Your task to perform on an android device: set the stopwatch Image 0: 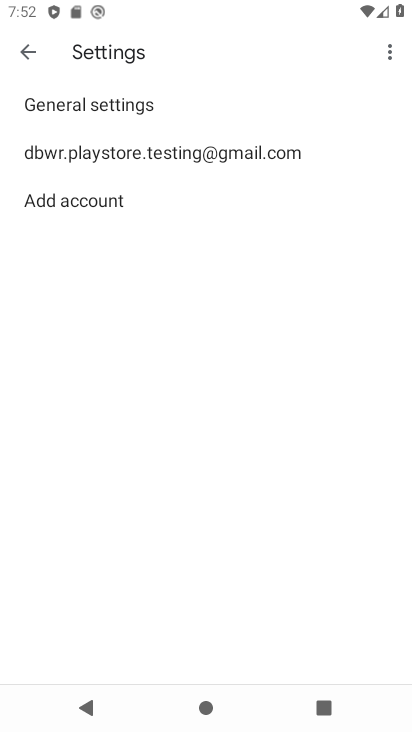
Step 0: press home button
Your task to perform on an android device: set the stopwatch Image 1: 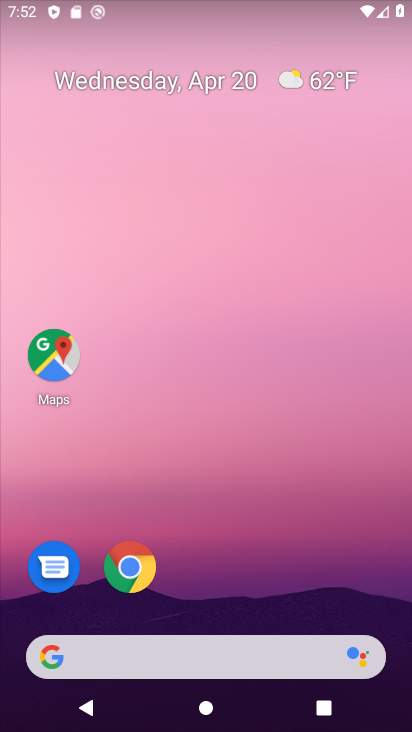
Step 1: drag from (337, 614) to (323, 0)
Your task to perform on an android device: set the stopwatch Image 2: 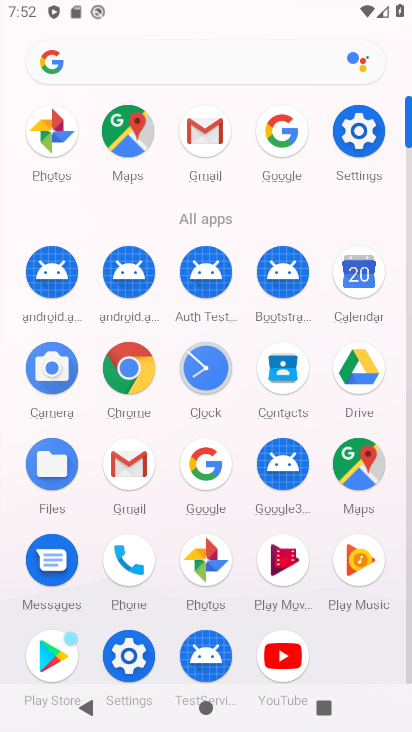
Step 2: click (203, 371)
Your task to perform on an android device: set the stopwatch Image 3: 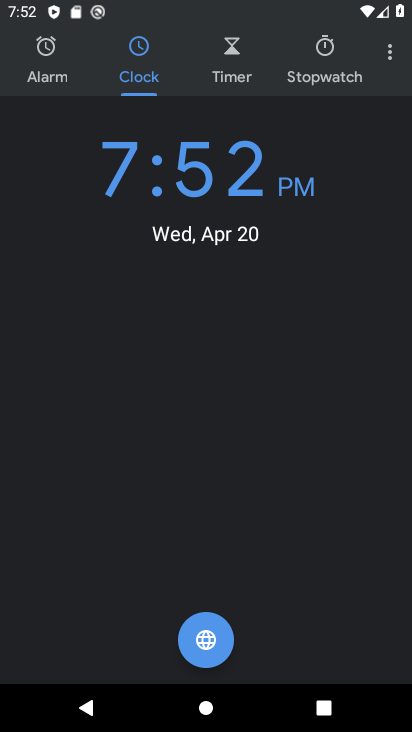
Step 3: click (319, 48)
Your task to perform on an android device: set the stopwatch Image 4: 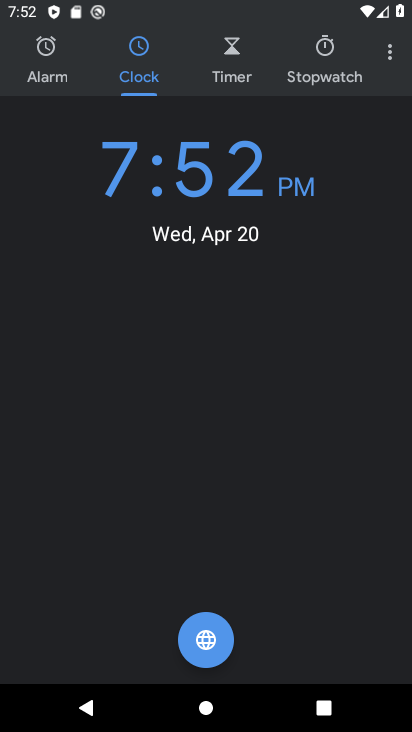
Step 4: click (317, 54)
Your task to perform on an android device: set the stopwatch Image 5: 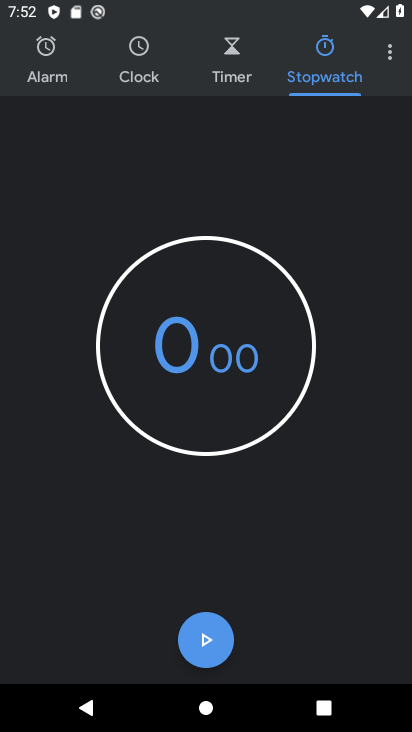
Step 5: click (196, 646)
Your task to perform on an android device: set the stopwatch Image 6: 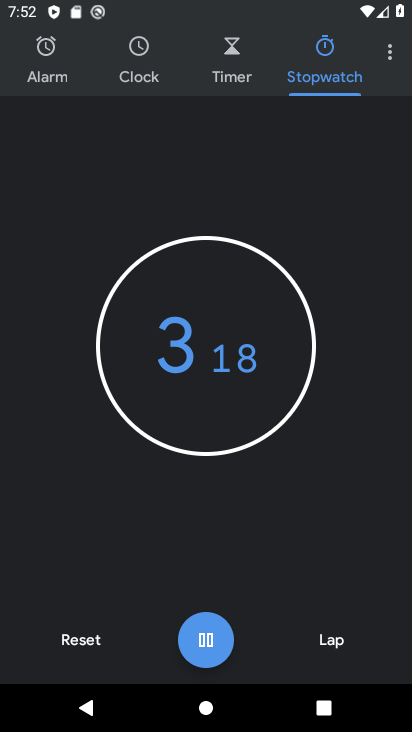
Step 6: click (200, 646)
Your task to perform on an android device: set the stopwatch Image 7: 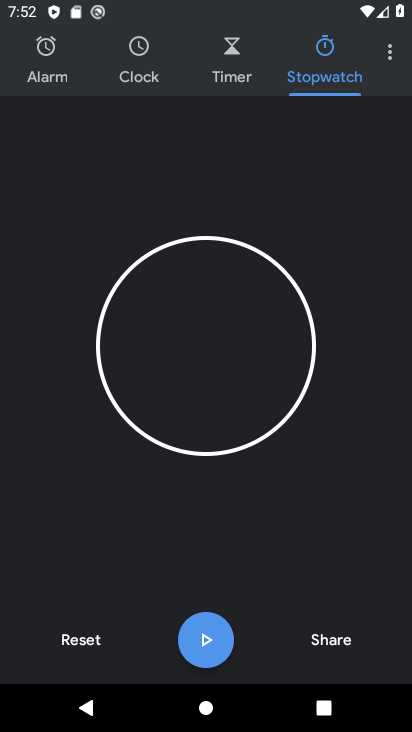
Step 7: task complete